Your task to perform on an android device: When is my next appointment? Image 0: 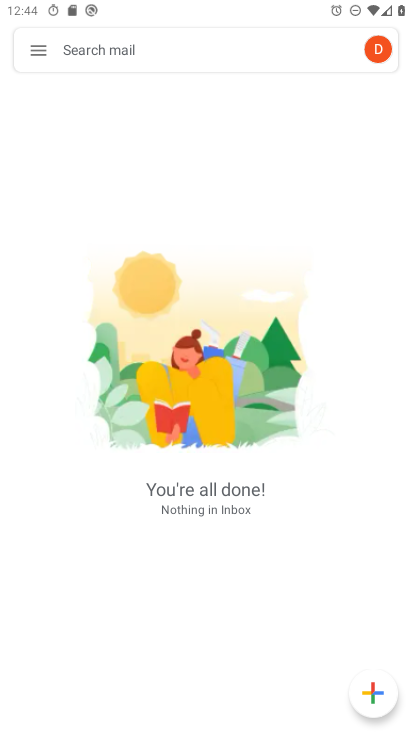
Step 0: press home button
Your task to perform on an android device: When is my next appointment? Image 1: 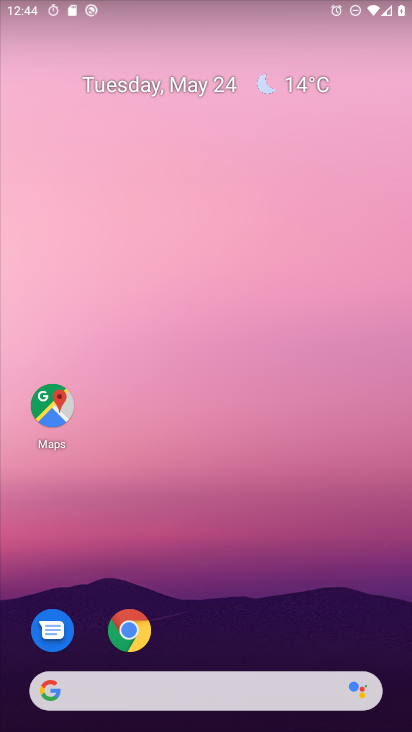
Step 1: drag from (355, 590) to (368, 125)
Your task to perform on an android device: When is my next appointment? Image 2: 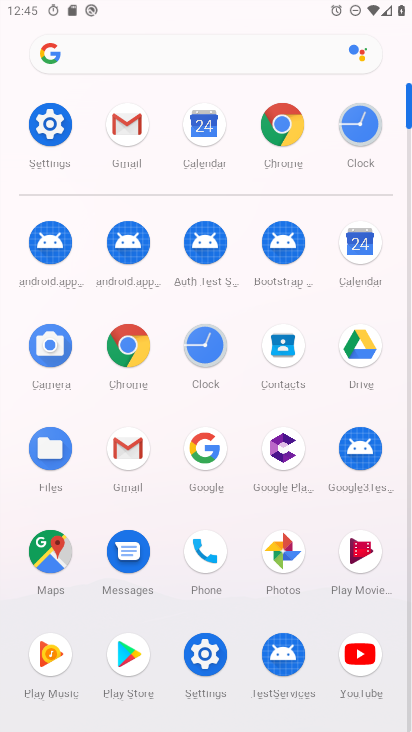
Step 2: click (367, 243)
Your task to perform on an android device: When is my next appointment? Image 3: 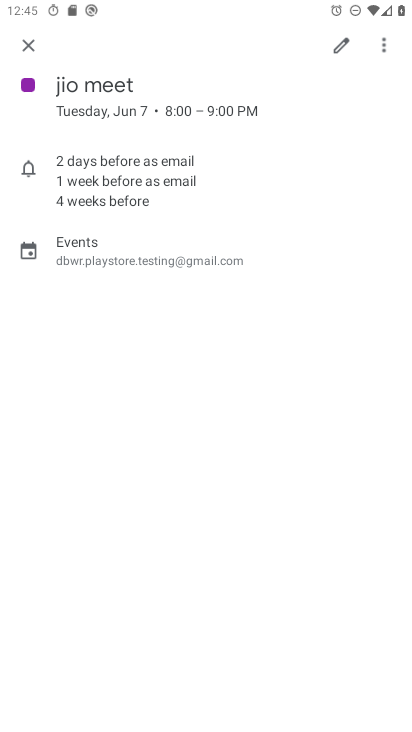
Step 3: click (29, 41)
Your task to perform on an android device: When is my next appointment? Image 4: 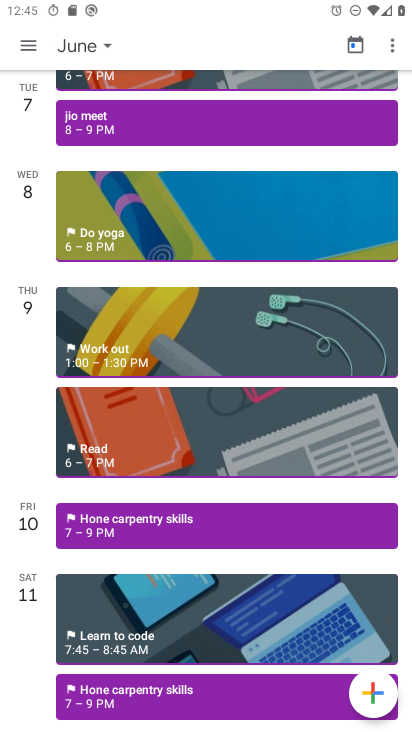
Step 4: click (112, 127)
Your task to perform on an android device: When is my next appointment? Image 5: 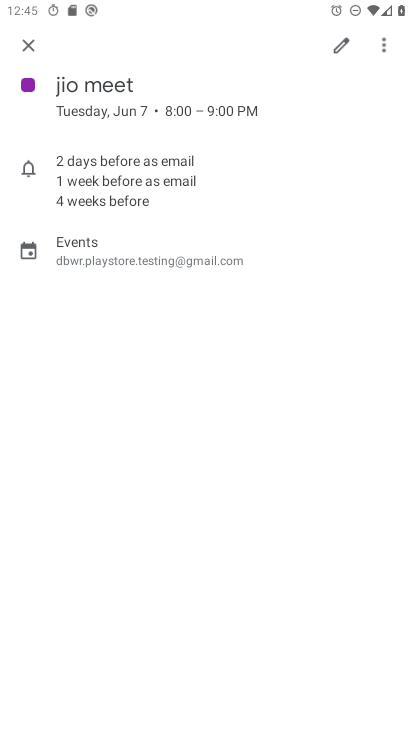
Step 5: task complete